Your task to perform on an android device: allow notifications from all sites in the chrome app Image 0: 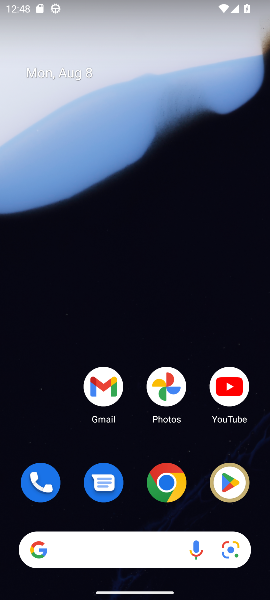
Step 0: drag from (112, 533) to (134, 3)
Your task to perform on an android device: allow notifications from all sites in the chrome app Image 1: 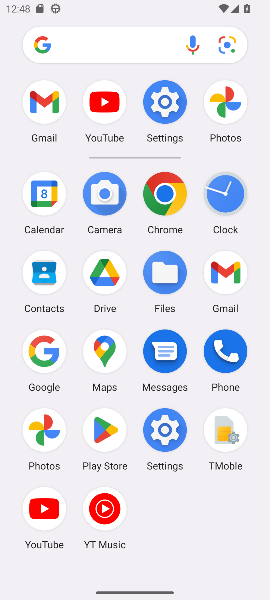
Step 1: click (177, 186)
Your task to perform on an android device: allow notifications from all sites in the chrome app Image 2: 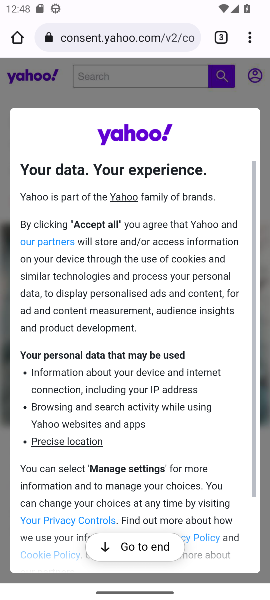
Step 2: click (247, 35)
Your task to perform on an android device: allow notifications from all sites in the chrome app Image 3: 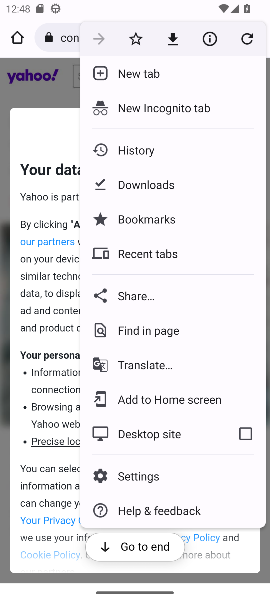
Step 3: click (126, 469)
Your task to perform on an android device: allow notifications from all sites in the chrome app Image 4: 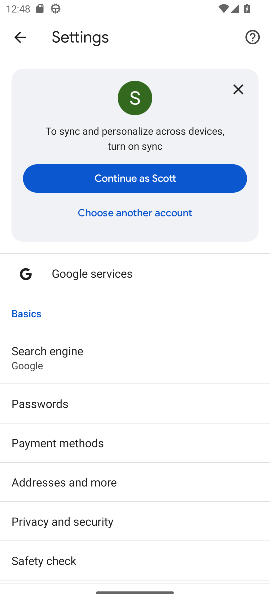
Step 4: drag from (174, 540) to (140, 213)
Your task to perform on an android device: allow notifications from all sites in the chrome app Image 5: 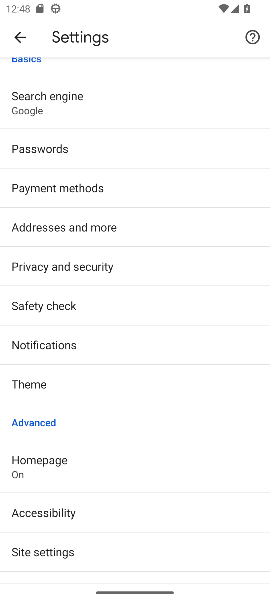
Step 5: drag from (132, 561) to (153, 300)
Your task to perform on an android device: allow notifications from all sites in the chrome app Image 6: 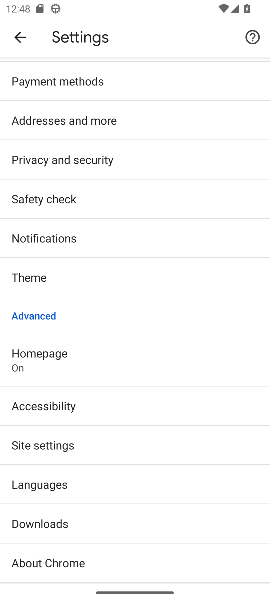
Step 6: click (91, 445)
Your task to perform on an android device: allow notifications from all sites in the chrome app Image 7: 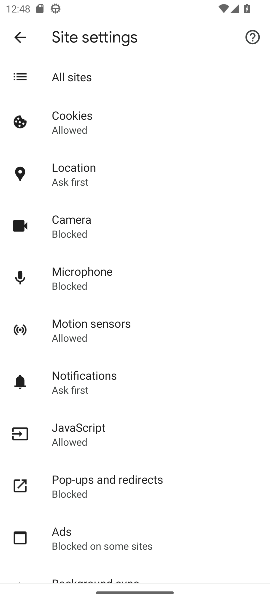
Step 7: click (74, 377)
Your task to perform on an android device: allow notifications from all sites in the chrome app Image 8: 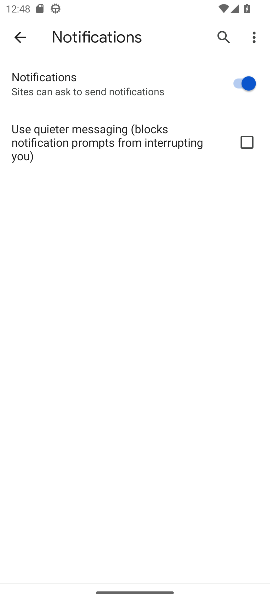
Step 8: task complete